Your task to perform on an android device: turn off notifications in google photos Image 0: 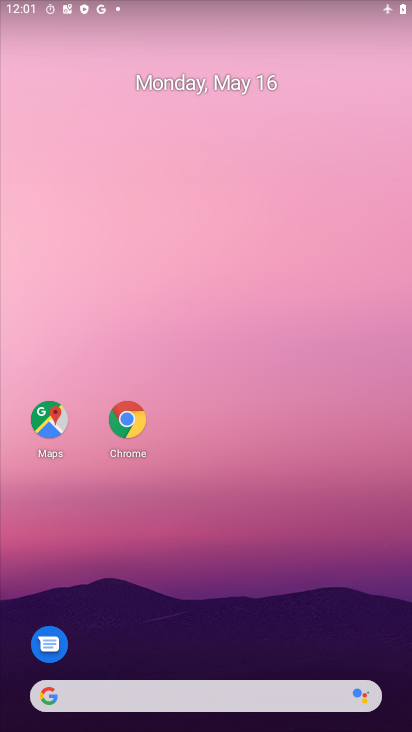
Step 0: drag from (271, 523) to (298, 117)
Your task to perform on an android device: turn off notifications in google photos Image 1: 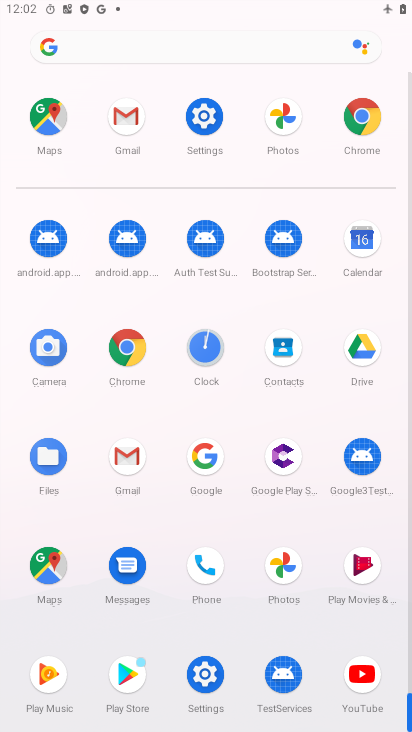
Step 1: click (277, 568)
Your task to perform on an android device: turn off notifications in google photos Image 2: 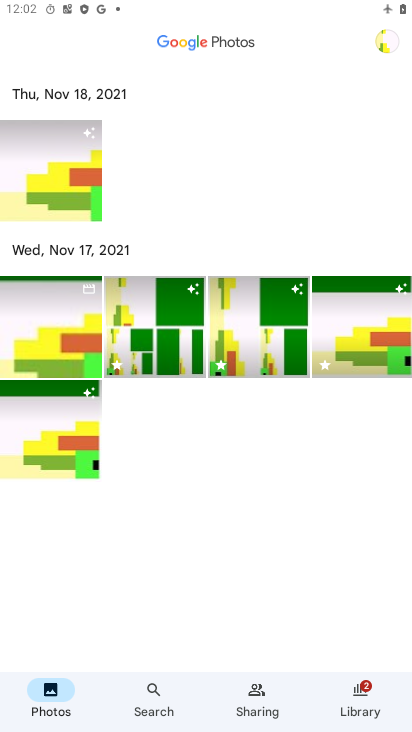
Step 2: click (383, 42)
Your task to perform on an android device: turn off notifications in google photos Image 3: 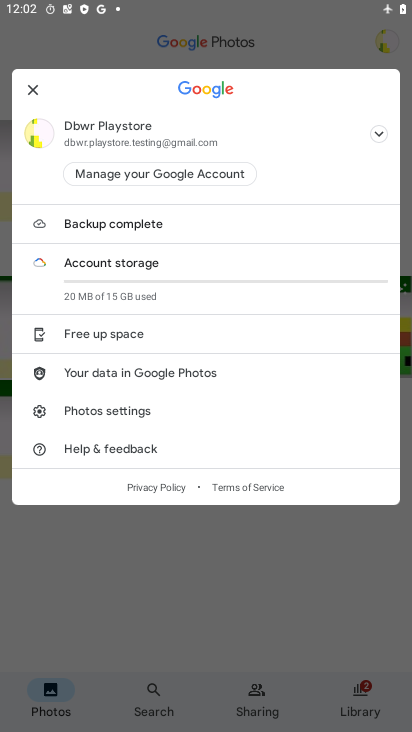
Step 3: click (83, 411)
Your task to perform on an android device: turn off notifications in google photos Image 4: 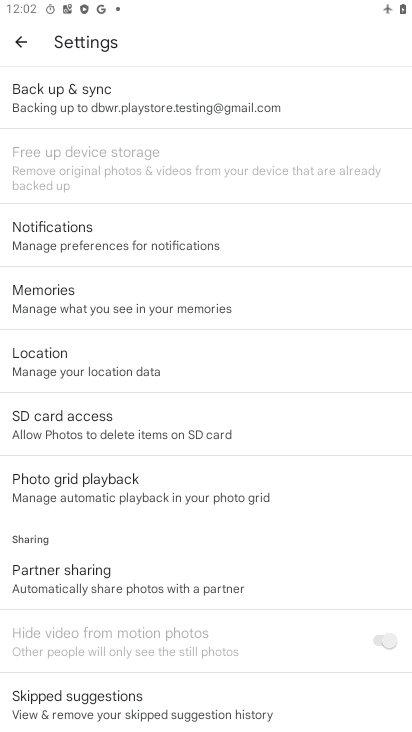
Step 4: click (101, 244)
Your task to perform on an android device: turn off notifications in google photos Image 5: 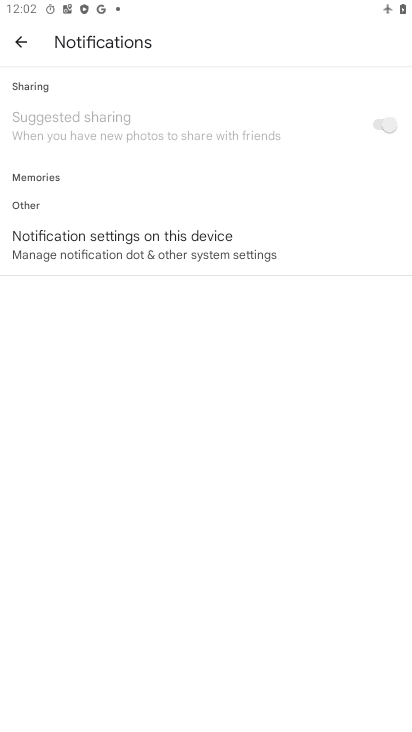
Step 5: click (145, 251)
Your task to perform on an android device: turn off notifications in google photos Image 6: 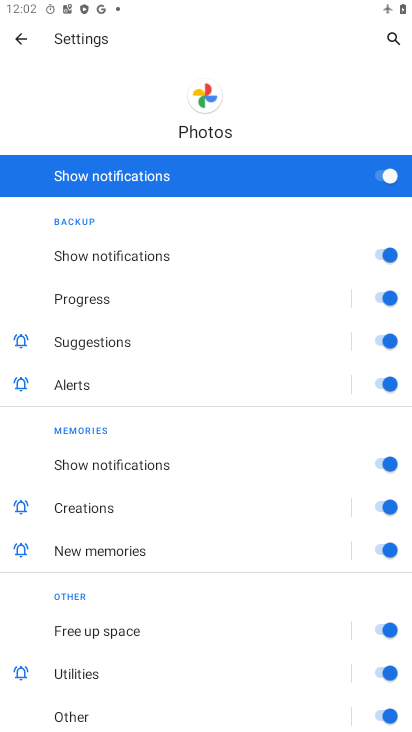
Step 6: drag from (201, 598) to (275, 261)
Your task to perform on an android device: turn off notifications in google photos Image 7: 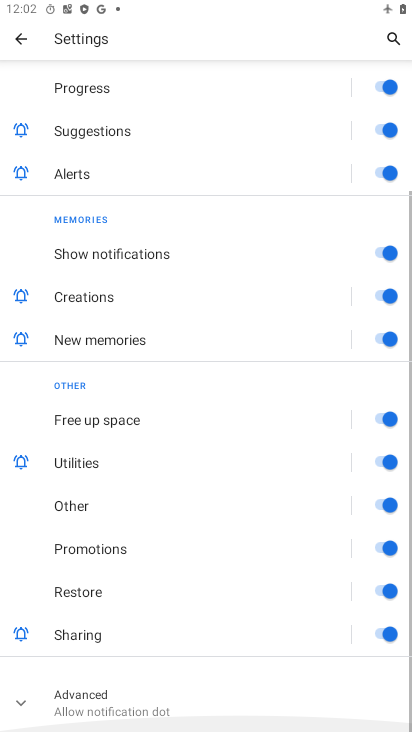
Step 7: drag from (276, 231) to (345, 697)
Your task to perform on an android device: turn off notifications in google photos Image 8: 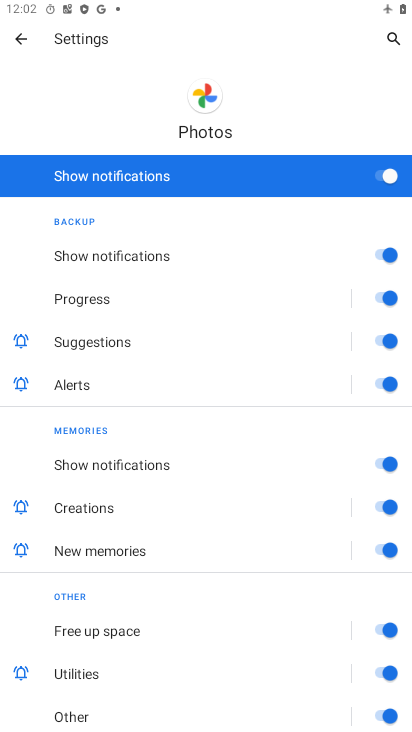
Step 8: click (383, 170)
Your task to perform on an android device: turn off notifications in google photos Image 9: 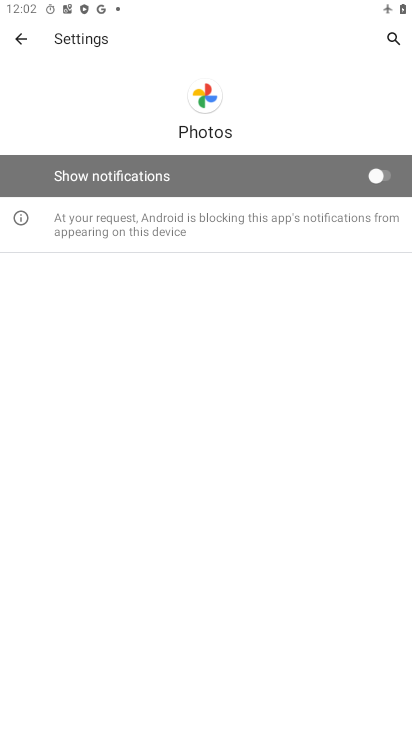
Step 9: task complete